Your task to perform on an android device: choose inbox layout in the gmail app Image 0: 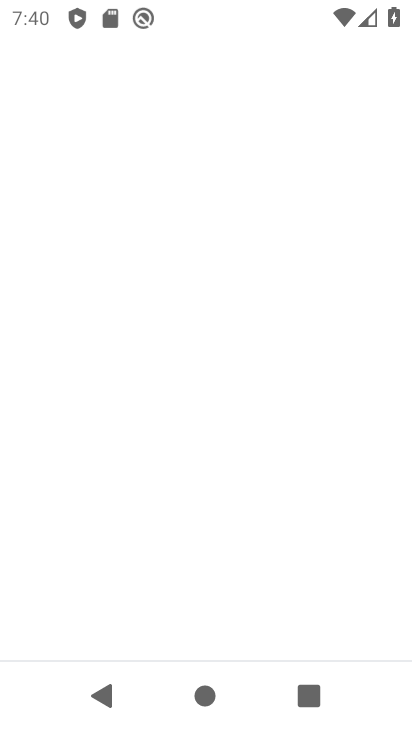
Step 0: press home button
Your task to perform on an android device: choose inbox layout in the gmail app Image 1: 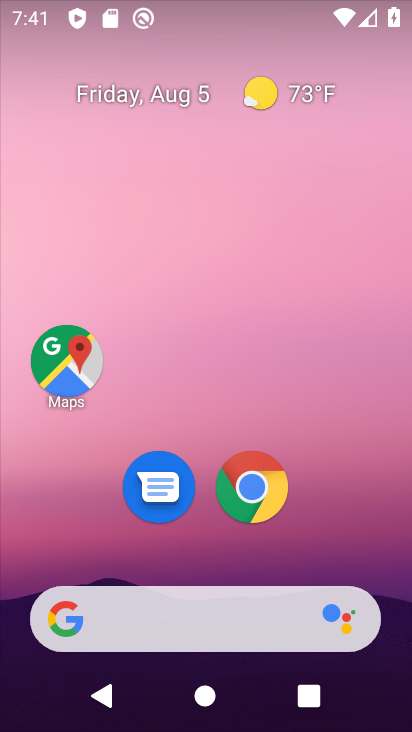
Step 1: drag from (187, 611) to (231, 12)
Your task to perform on an android device: choose inbox layout in the gmail app Image 2: 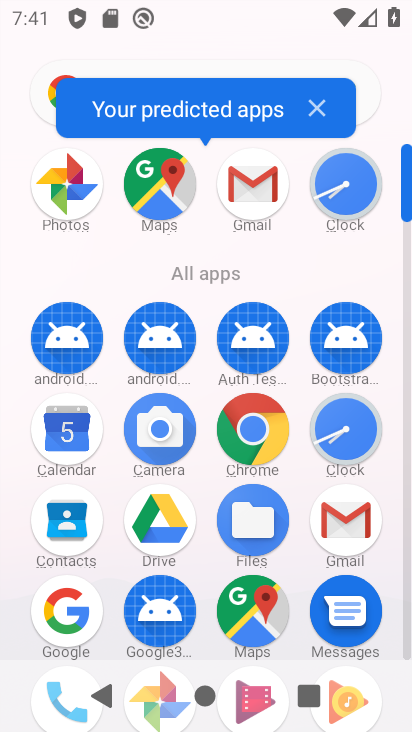
Step 2: click (248, 185)
Your task to perform on an android device: choose inbox layout in the gmail app Image 3: 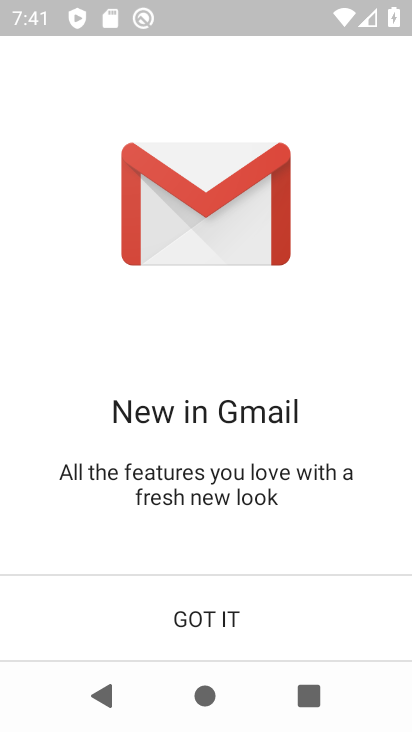
Step 3: click (196, 612)
Your task to perform on an android device: choose inbox layout in the gmail app Image 4: 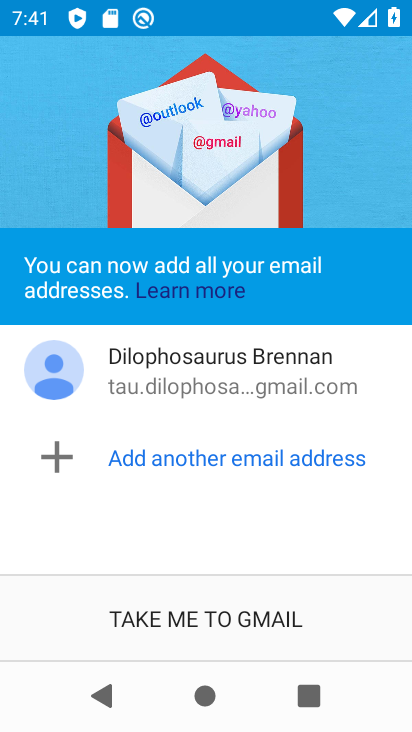
Step 4: click (209, 615)
Your task to perform on an android device: choose inbox layout in the gmail app Image 5: 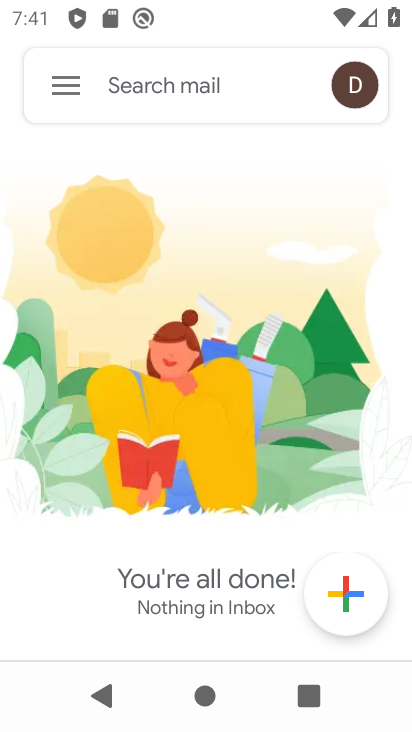
Step 5: click (65, 84)
Your task to perform on an android device: choose inbox layout in the gmail app Image 6: 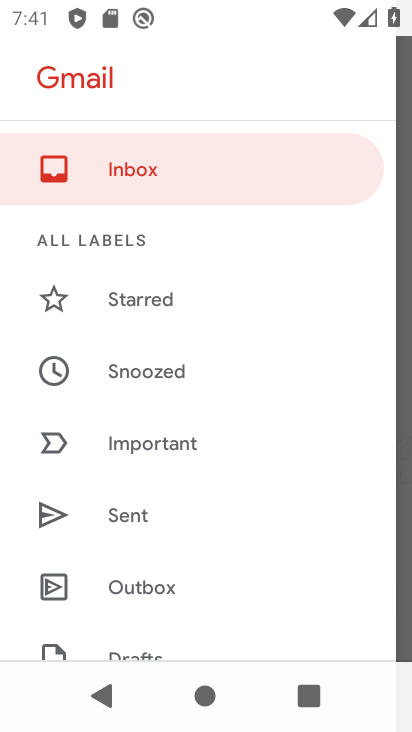
Step 6: drag from (238, 595) to (342, 127)
Your task to perform on an android device: choose inbox layout in the gmail app Image 7: 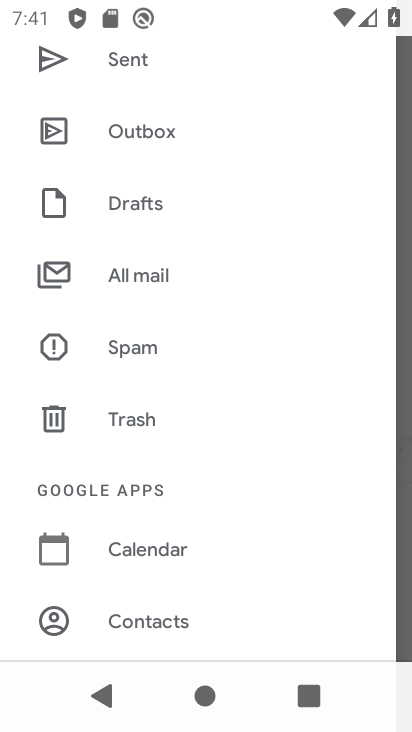
Step 7: drag from (228, 605) to (287, 96)
Your task to perform on an android device: choose inbox layout in the gmail app Image 8: 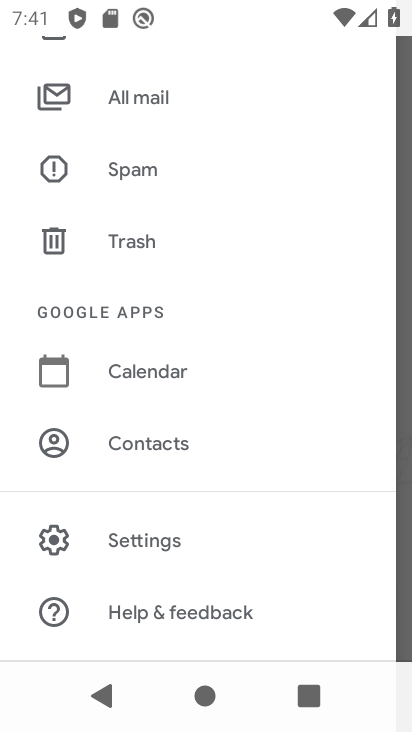
Step 8: click (151, 535)
Your task to perform on an android device: choose inbox layout in the gmail app Image 9: 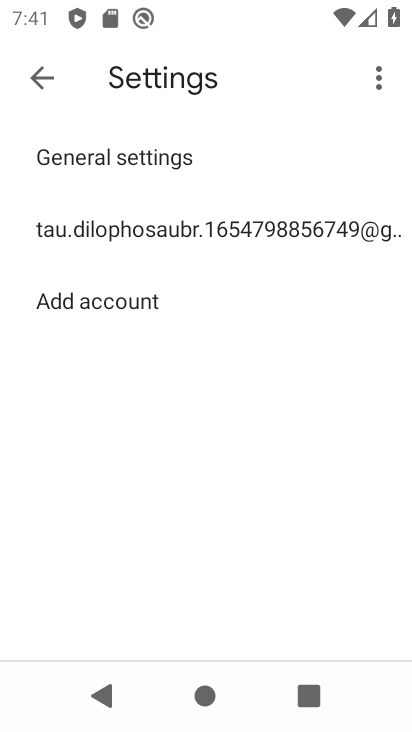
Step 9: click (170, 232)
Your task to perform on an android device: choose inbox layout in the gmail app Image 10: 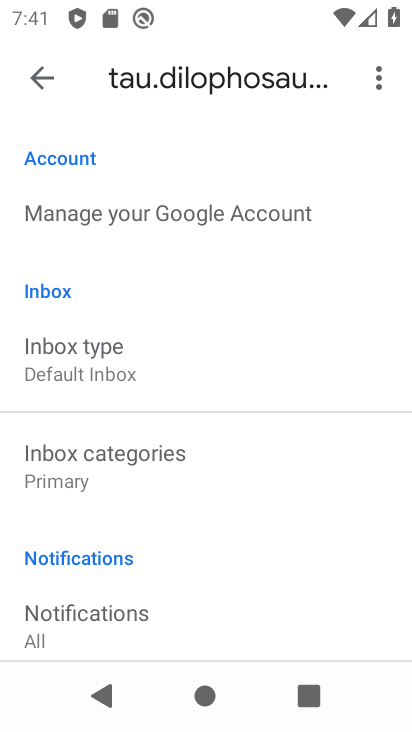
Step 10: click (95, 368)
Your task to perform on an android device: choose inbox layout in the gmail app Image 11: 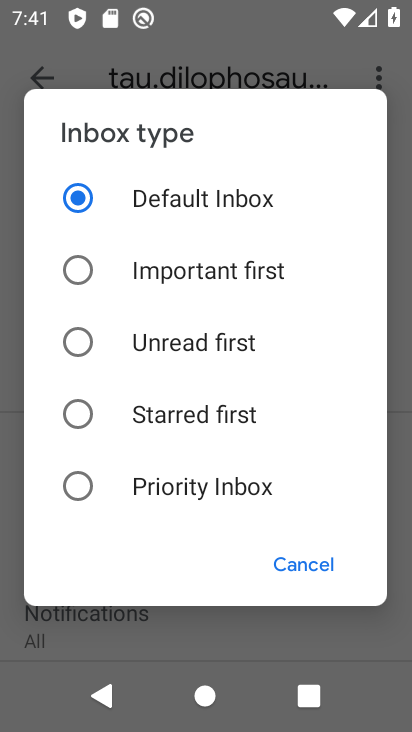
Step 11: click (66, 492)
Your task to perform on an android device: choose inbox layout in the gmail app Image 12: 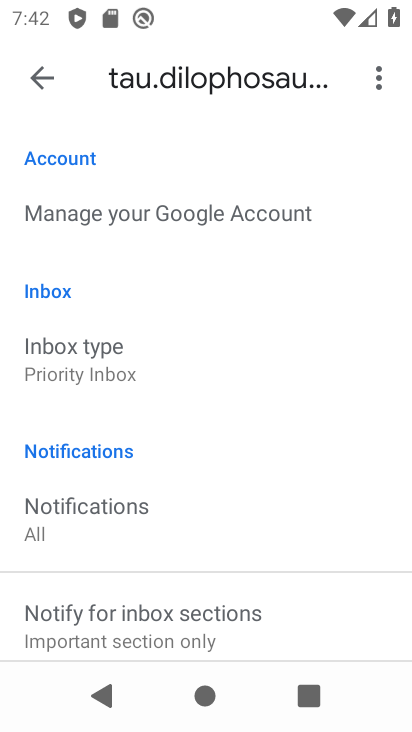
Step 12: task complete